Your task to perform on an android device: Go to Wikipedia Image 0: 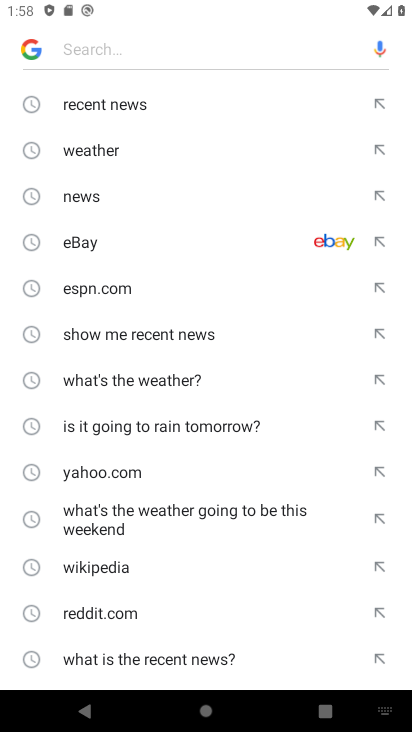
Step 0: press home button
Your task to perform on an android device: Go to Wikipedia Image 1: 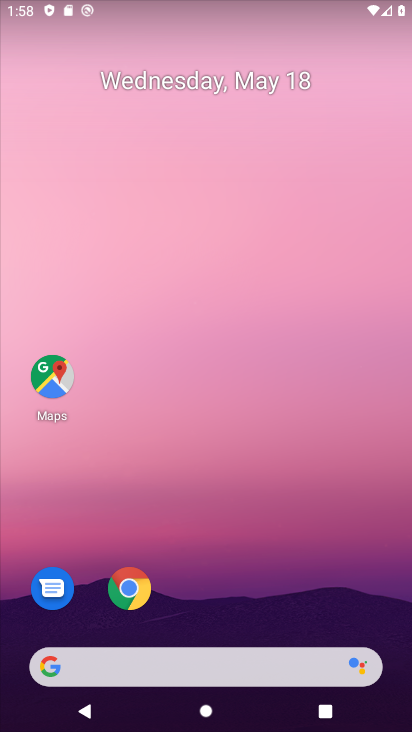
Step 1: click (121, 583)
Your task to perform on an android device: Go to Wikipedia Image 2: 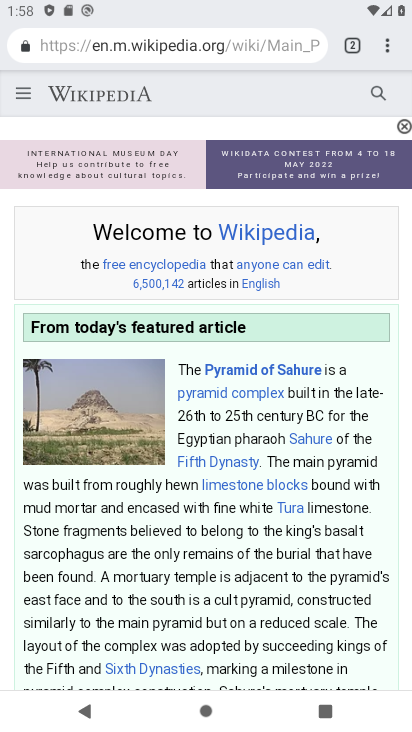
Step 2: task complete